Your task to perform on an android device: toggle notification dots Image 0: 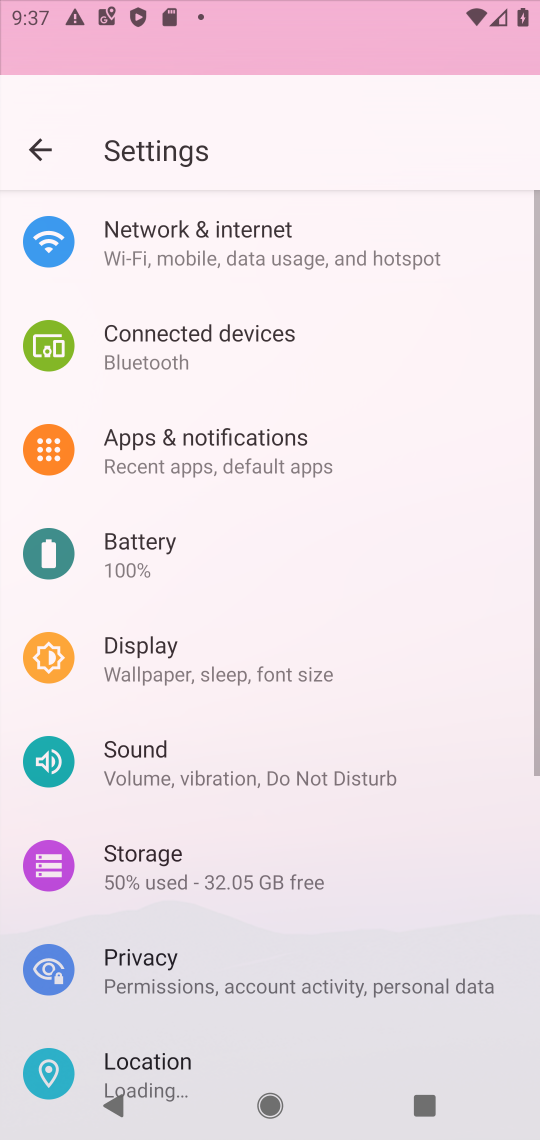
Step 0: press home button
Your task to perform on an android device: toggle notification dots Image 1: 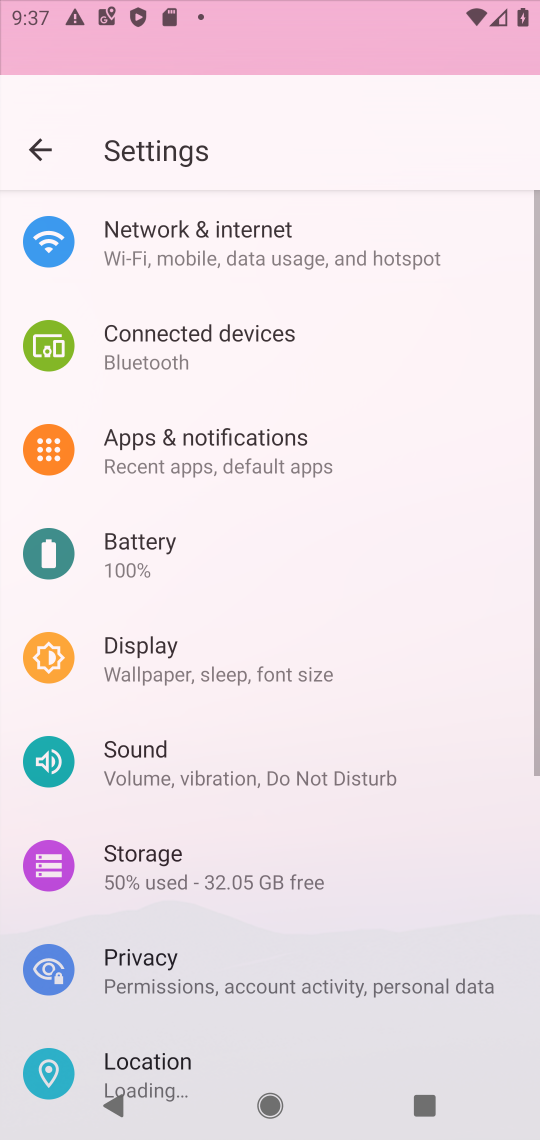
Step 1: click (148, 8)
Your task to perform on an android device: toggle notification dots Image 2: 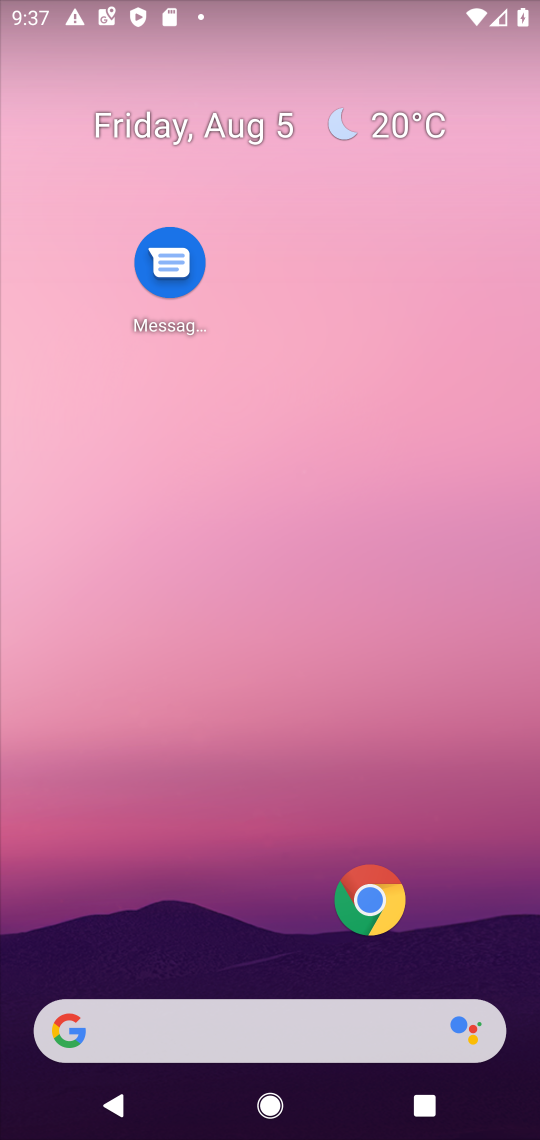
Step 2: drag from (168, 977) to (162, 401)
Your task to perform on an android device: toggle notification dots Image 3: 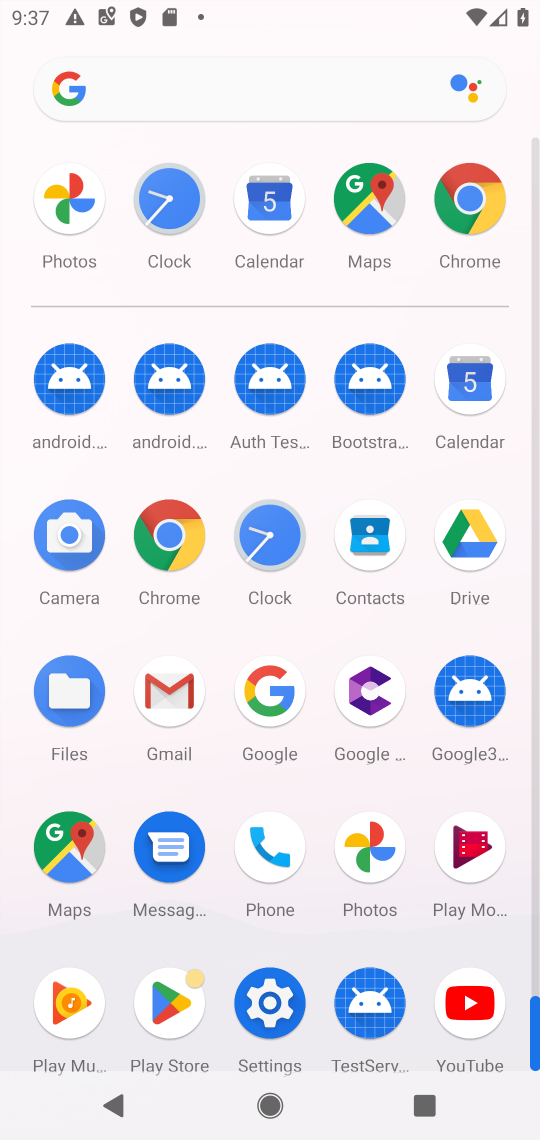
Step 3: drag from (199, 1011) to (191, 642)
Your task to perform on an android device: toggle notification dots Image 4: 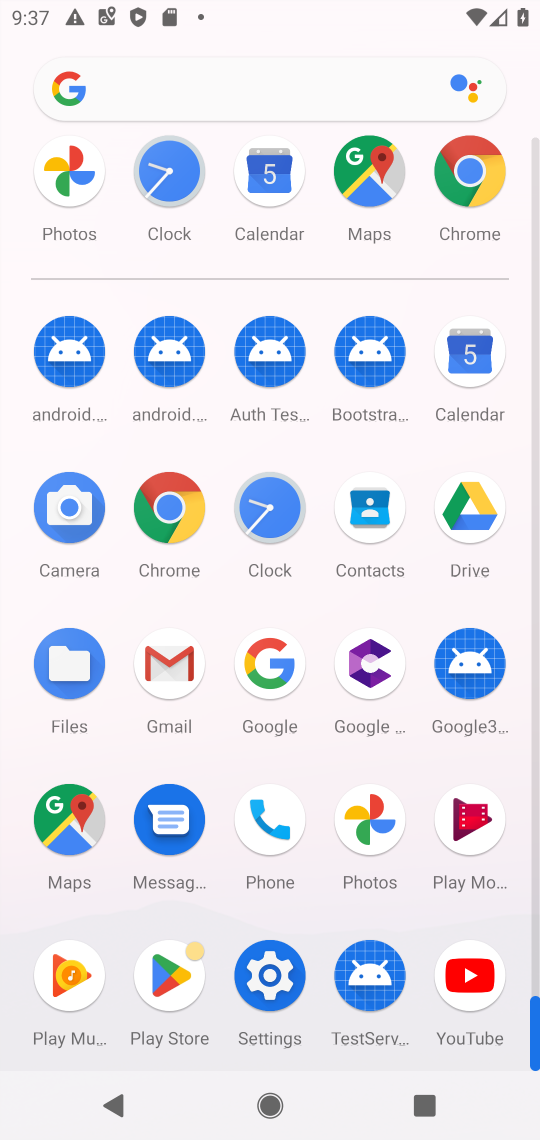
Step 4: click (474, 842)
Your task to perform on an android device: toggle notification dots Image 5: 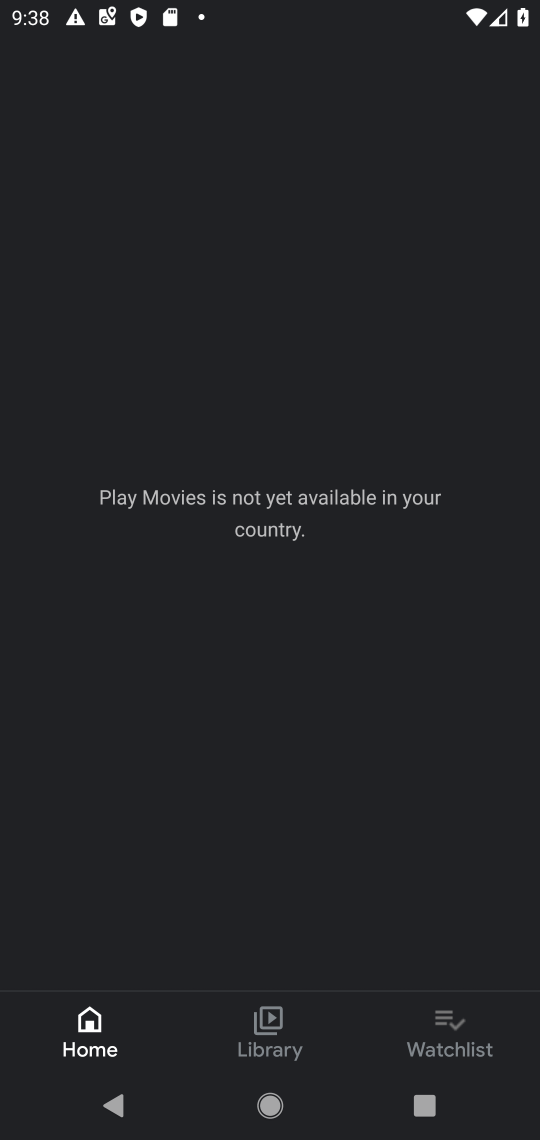
Step 5: press home button
Your task to perform on an android device: toggle notification dots Image 6: 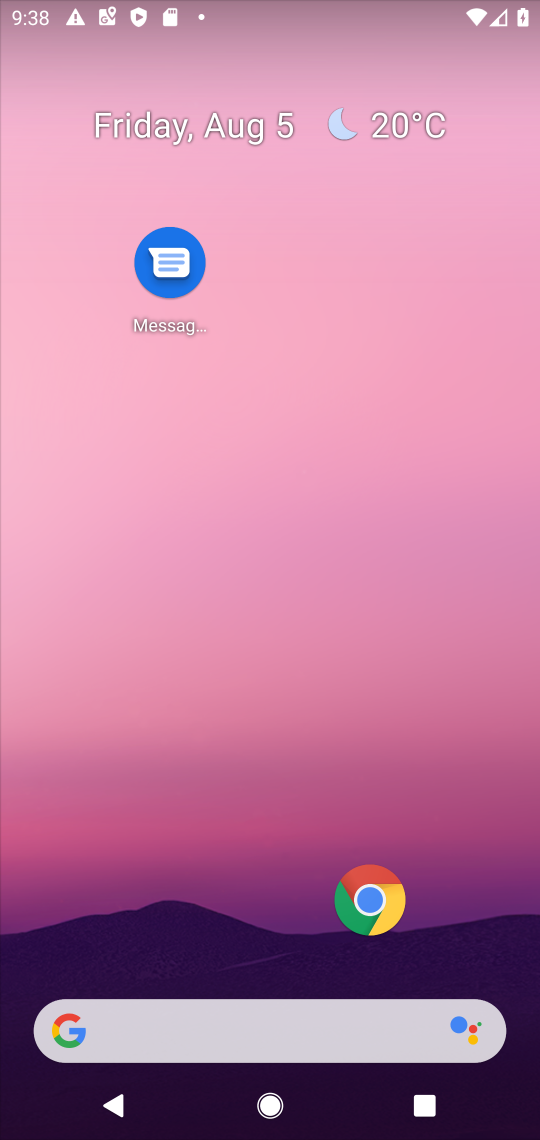
Step 6: drag from (504, 976) to (310, 189)
Your task to perform on an android device: toggle notification dots Image 7: 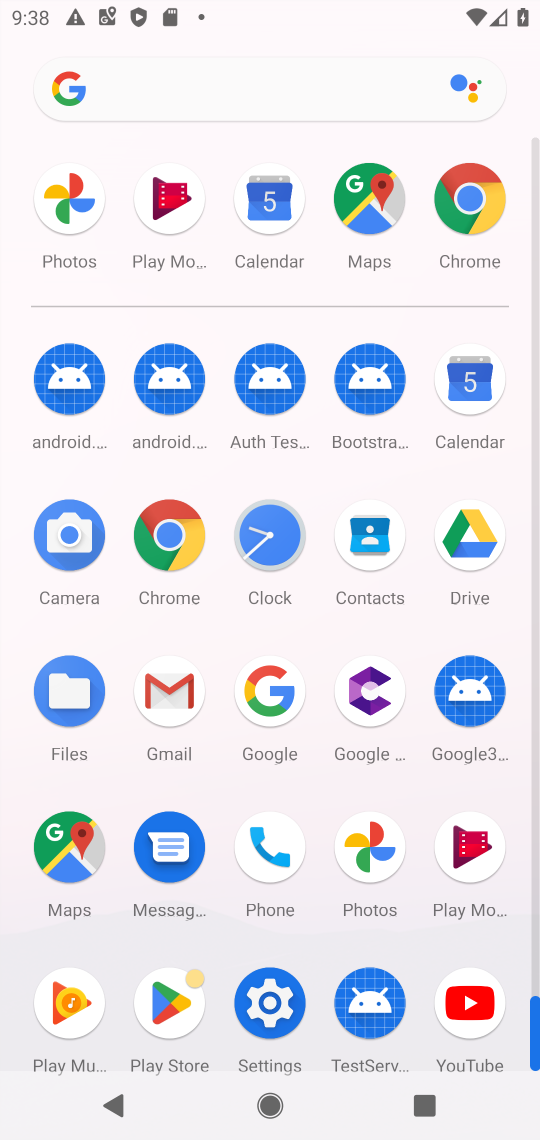
Step 7: click (270, 996)
Your task to perform on an android device: toggle notification dots Image 8: 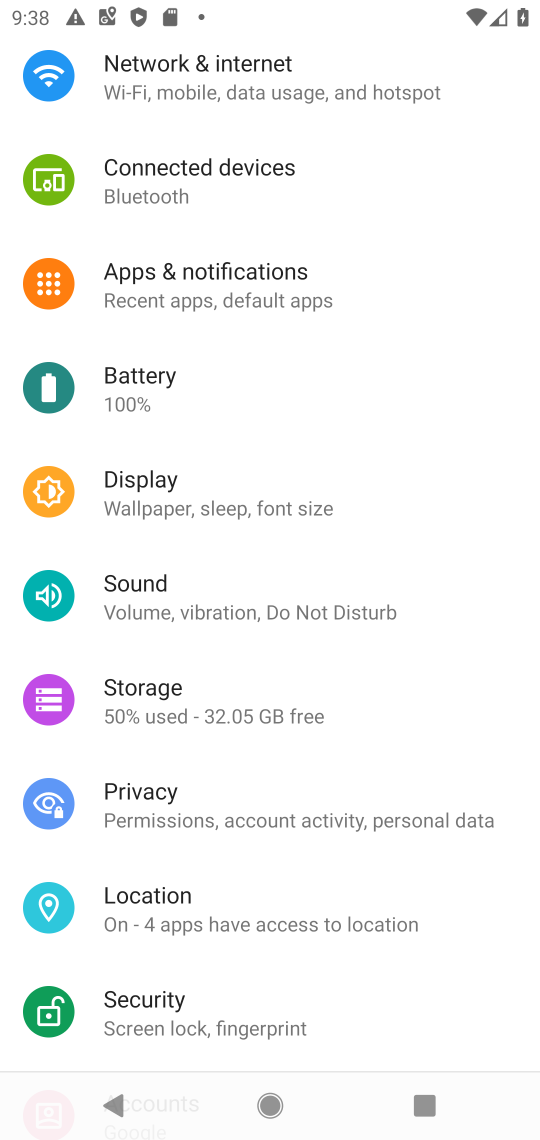
Step 8: click (223, 271)
Your task to perform on an android device: toggle notification dots Image 9: 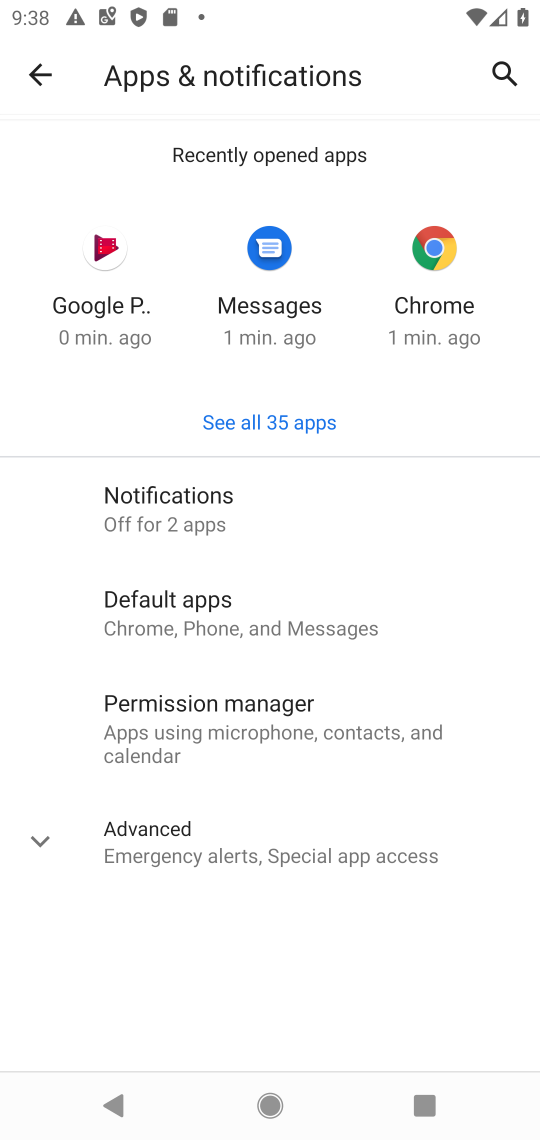
Step 9: click (136, 500)
Your task to perform on an android device: toggle notification dots Image 10: 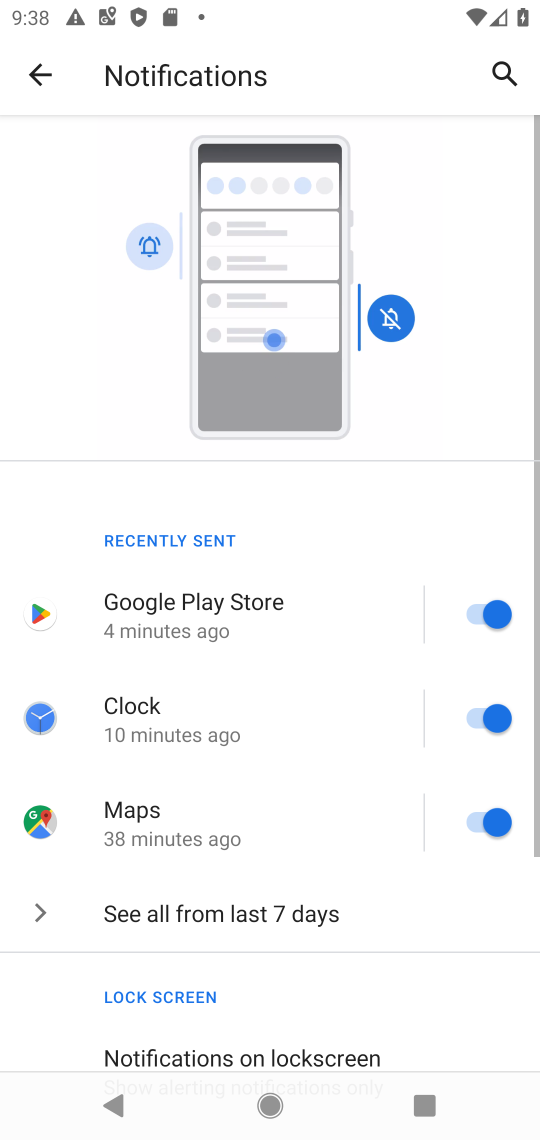
Step 10: drag from (258, 895) to (278, 238)
Your task to perform on an android device: toggle notification dots Image 11: 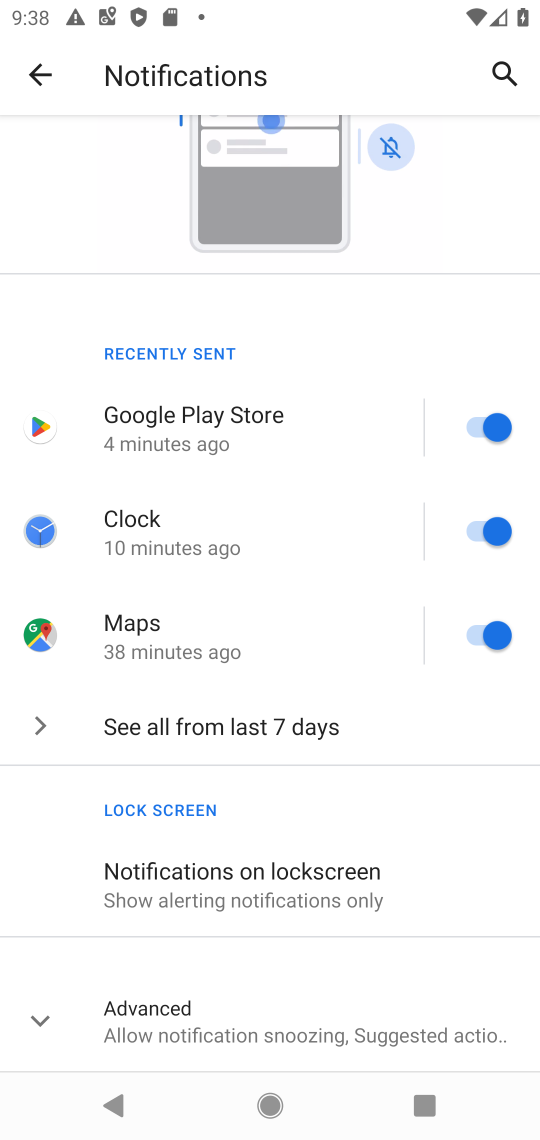
Step 11: click (132, 998)
Your task to perform on an android device: toggle notification dots Image 12: 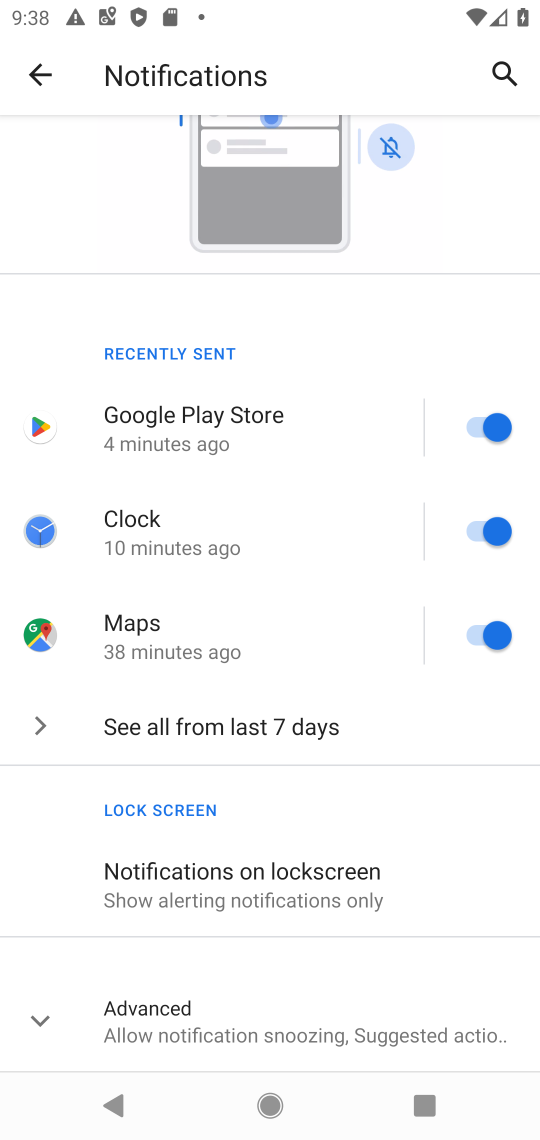
Step 12: drag from (313, 1068) to (254, 166)
Your task to perform on an android device: toggle notification dots Image 13: 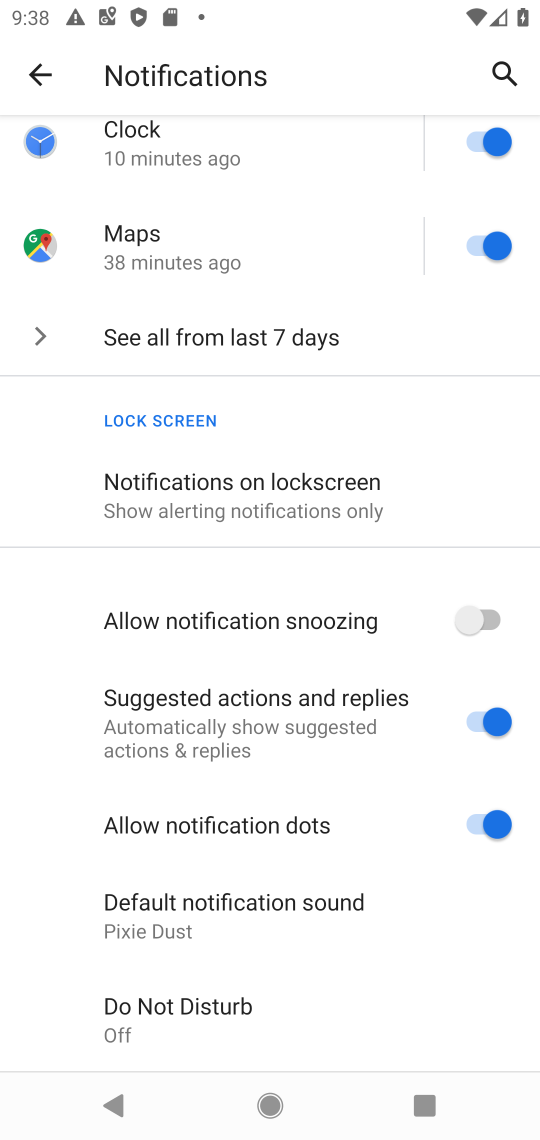
Step 13: click (306, 837)
Your task to perform on an android device: toggle notification dots Image 14: 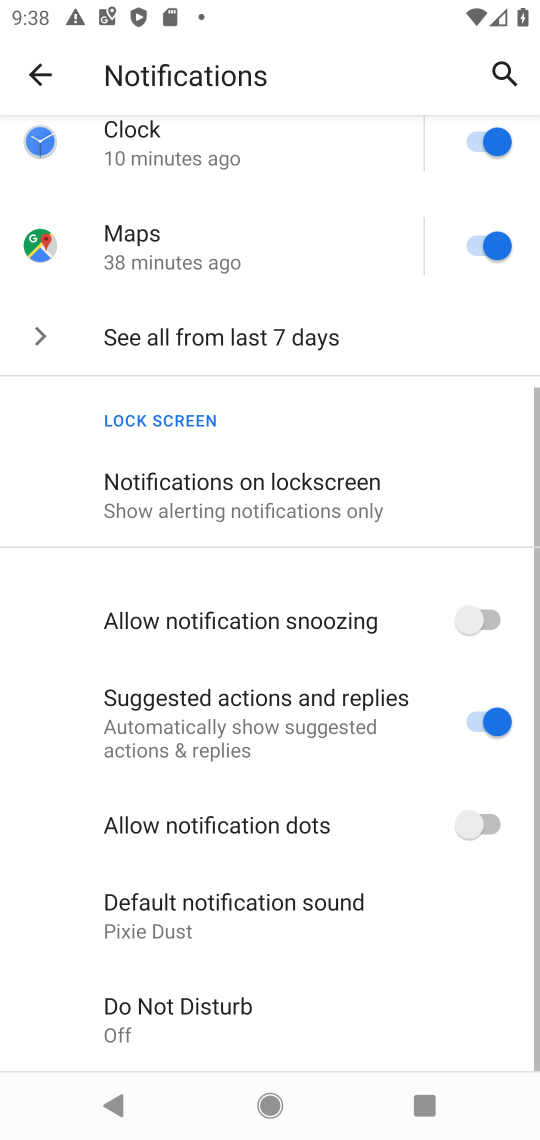
Step 14: task complete